Your task to perform on an android device: Check the news Image 0: 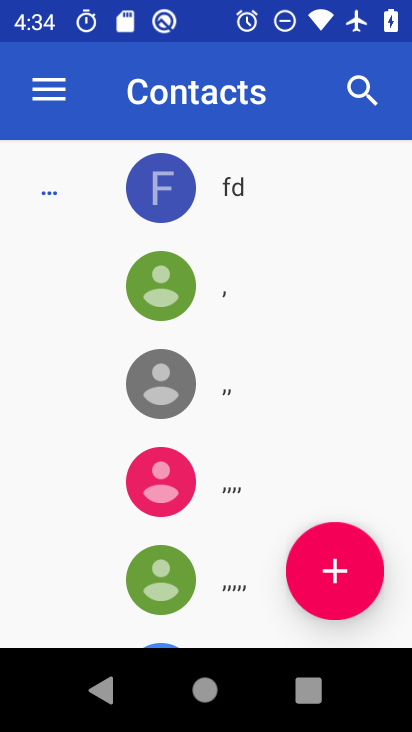
Step 0: press home button
Your task to perform on an android device: Check the news Image 1: 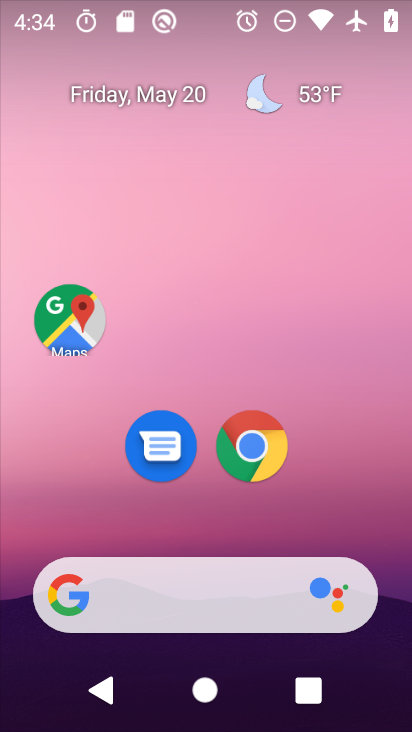
Step 1: drag from (354, 502) to (351, 56)
Your task to perform on an android device: Check the news Image 2: 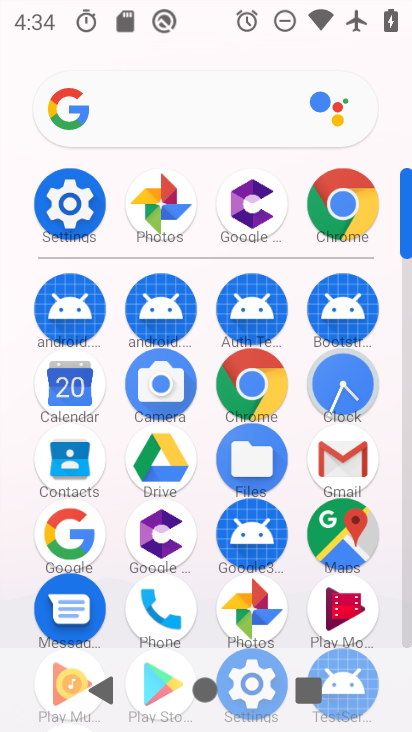
Step 2: click (338, 225)
Your task to perform on an android device: Check the news Image 3: 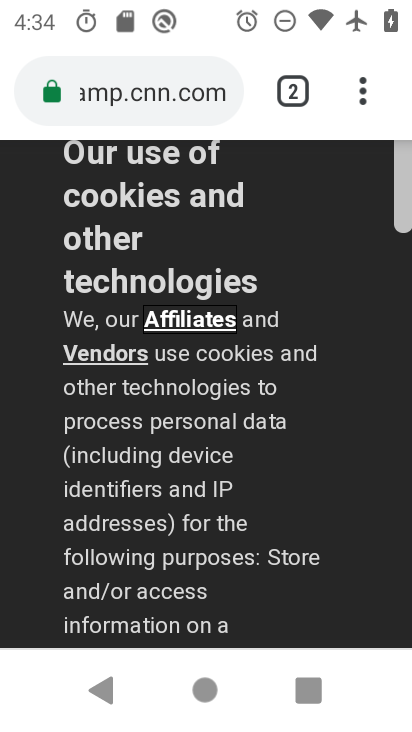
Step 3: task complete